Your task to perform on an android device: open chrome and create a bookmark for the current page Image 0: 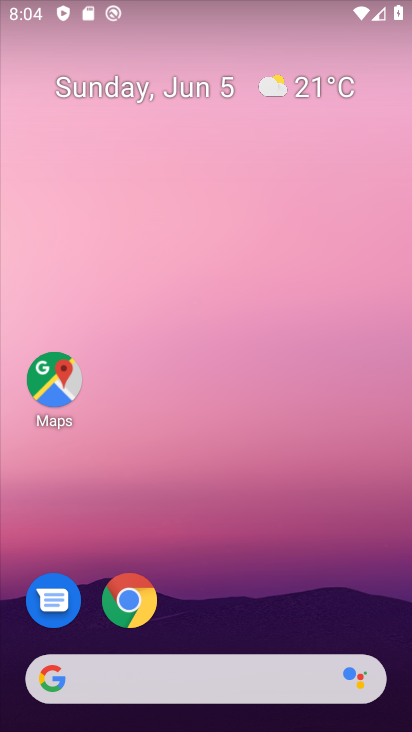
Step 0: click (126, 598)
Your task to perform on an android device: open chrome and create a bookmark for the current page Image 1: 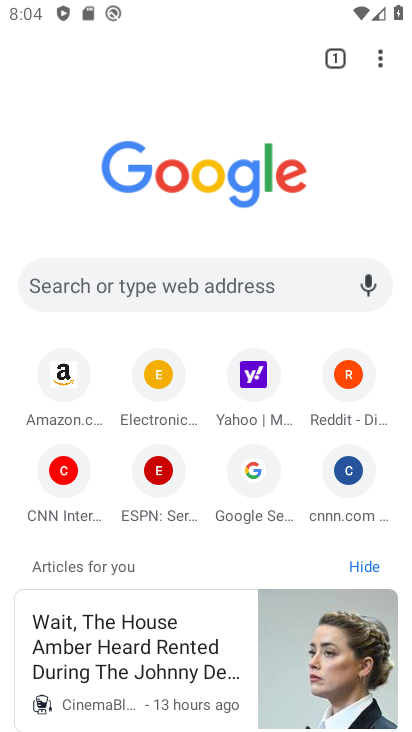
Step 1: click (378, 51)
Your task to perform on an android device: open chrome and create a bookmark for the current page Image 2: 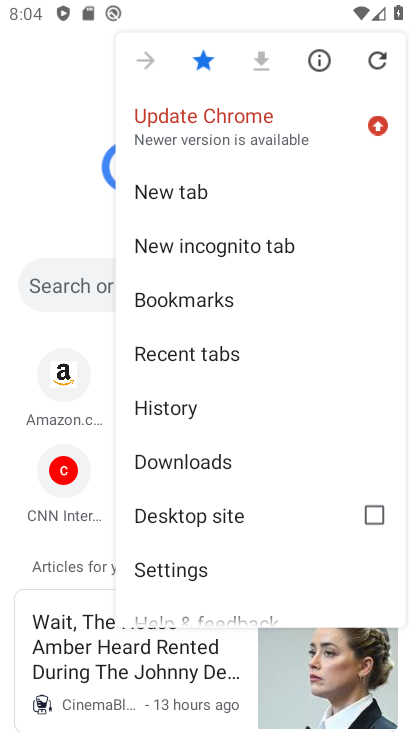
Step 2: task complete